Your task to perform on an android device: Open the phone app and click the voicemail tab. Image 0: 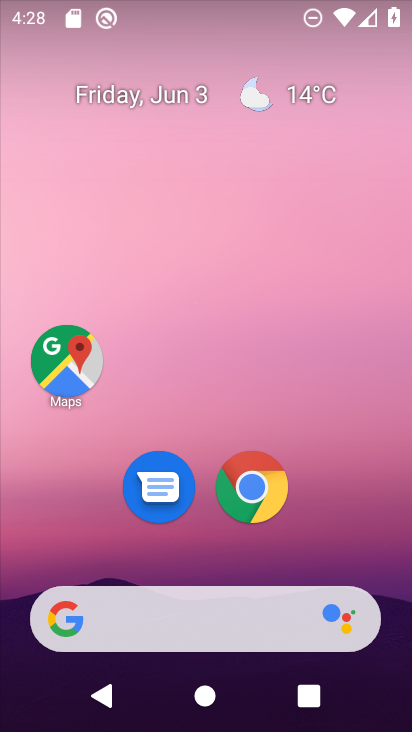
Step 0: drag from (145, 560) to (195, 61)
Your task to perform on an android device: Open the phone app and click the voicemail tab. Image 1: 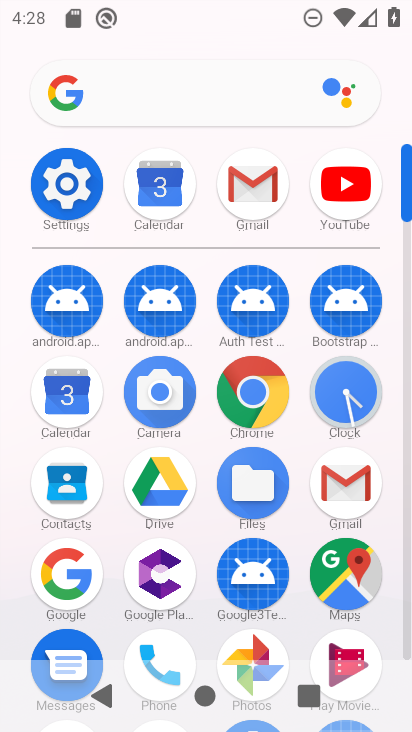
Step 1: drag from (172, 641) to (241, 263)
Your task to perform on an android device: Open the phone app and click the voicemail tab. Image 2: 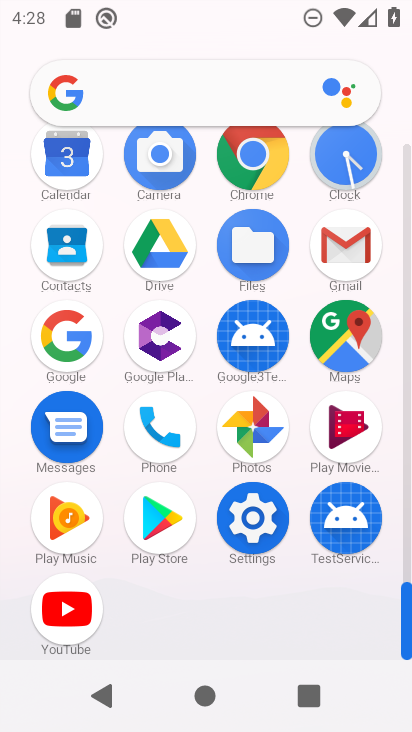
Step 2: click (148, 441)
Your task to perform on an android device: Open the phone app and click the voicemail tab. Image 3: 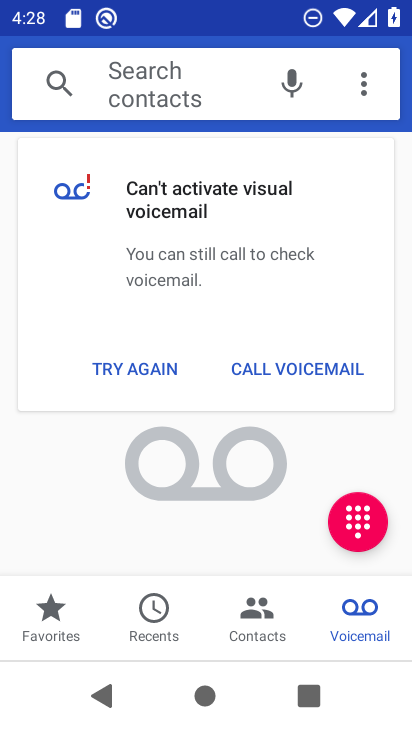
Step 3: task complete